Your task to perform on an android device: What's the weather going to be this weekend? Image 0: 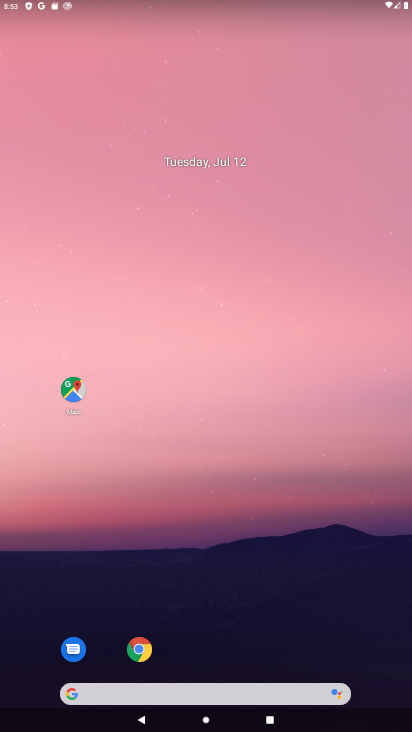
Step 0: click (269, 602)
Your task to perform on an android device: What's the weather going to be this weekend? Image 1: 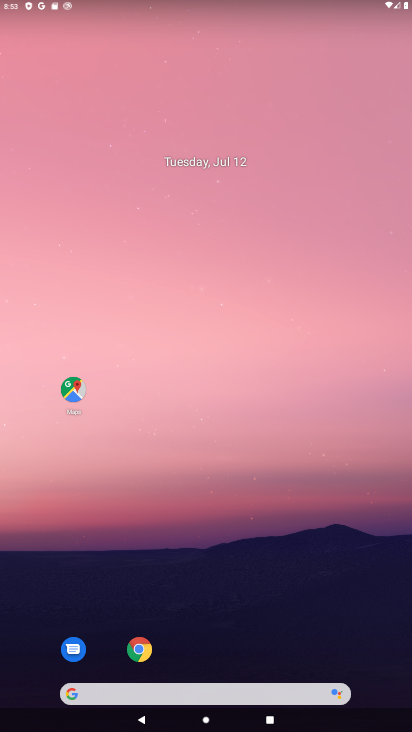
Step 1: click (192, 700)
Your task to perform on an android device: What's the weather going to be this weekend? Image 2: 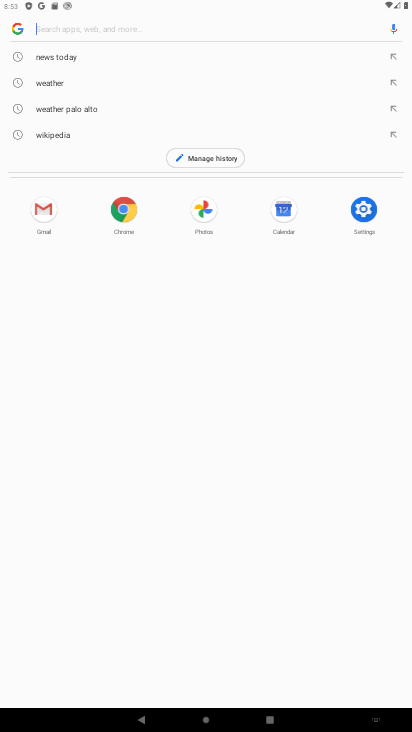
Step 2: click (48, 80)
Your task to perform on an android device: What's the weather going to be this weekend? Image 3: 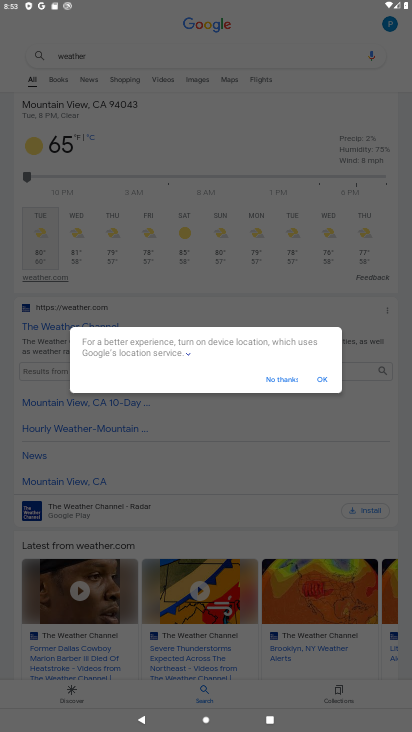
Step 3: task complete